Your task to perform on an android device: Open Youtube and go to the subscriptions tab Image 0: 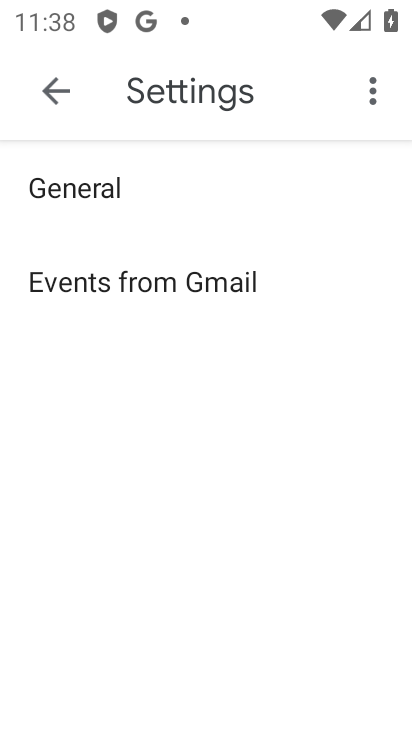
Step 0: press home button
Your task to perform on an android device: Open Youtube and go to the subscriptions tab Image 1: 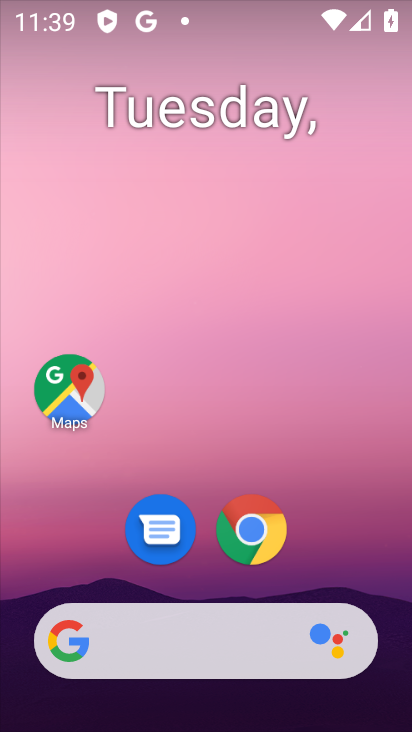
Step 1: drag from (157, 598) to (326, 7)
Your task to perform on an android device: Open Youtube and go to the subscriptions tab Image 2: 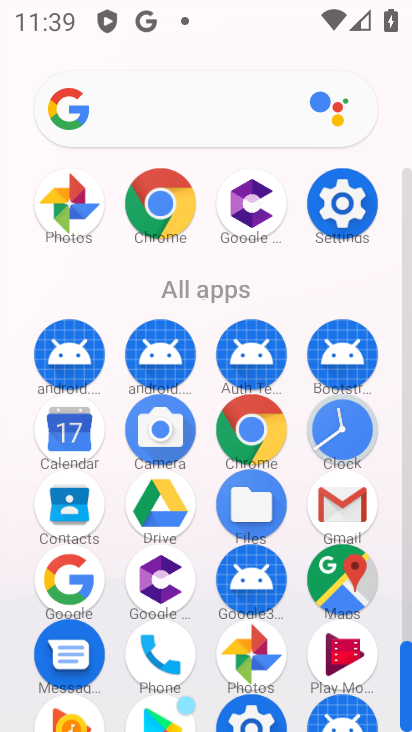
Step 2: drag from (185, 572) to (260, 336)
Your task to perform on an android device: Open Youtube and go to the subscriptions tab Image 3: 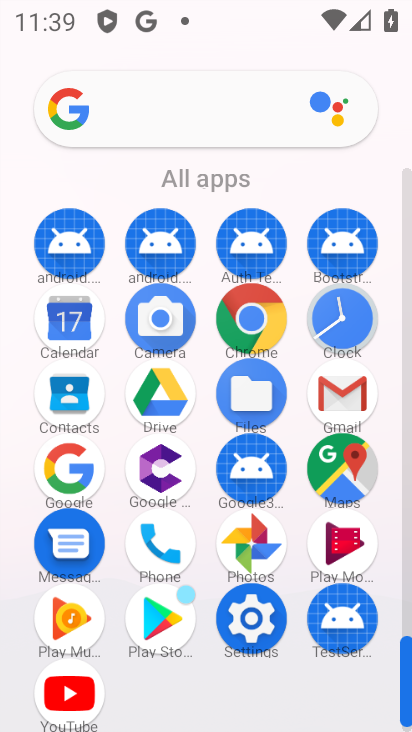
Step 3: click (71, 688)
Your task to perform on an android device: Open Youtube and go to the subscriptions tab Image 4: 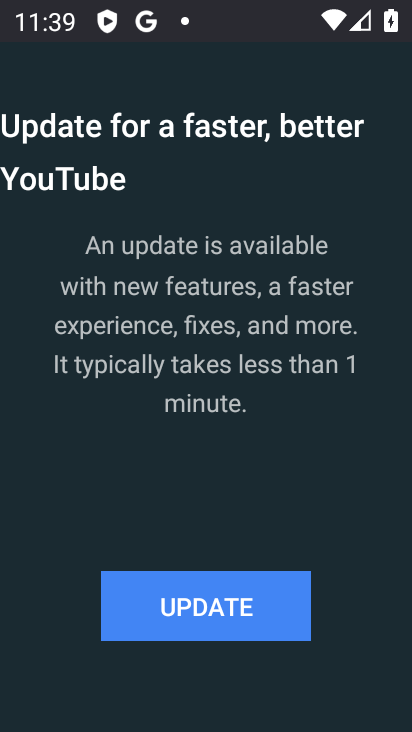
Step 4: click (243, 613)
Your task to perform on an android device: Open Youtube and go to the subscriptions tab Image 5: 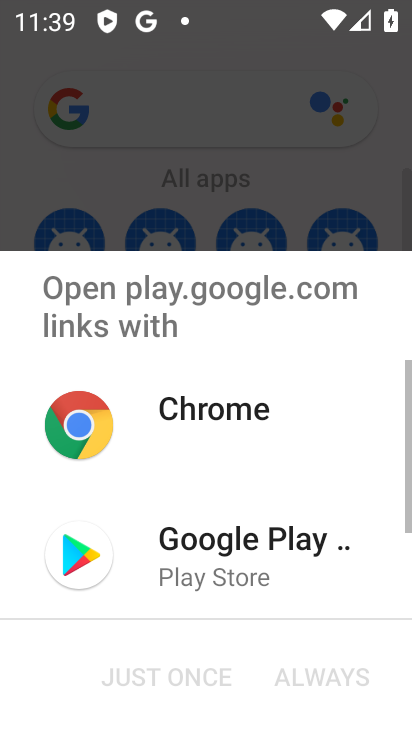
Step 5: click (267, 577)
Your task to perform on an android device: Open Youtube and go to the subscriptions tab Image 6: 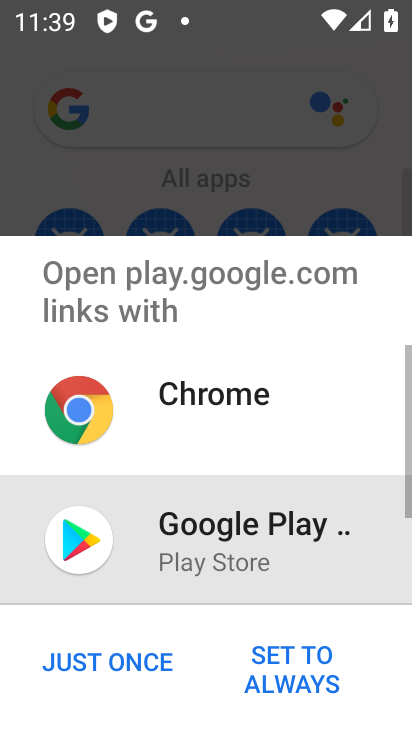
Step 6: click (156, 656)
Your task to perform on an android device: Open Youtube and go to the subscriptions tab Image 7: 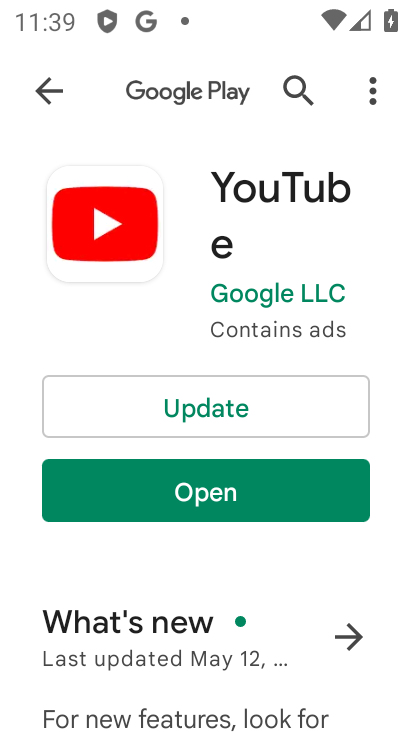
Step 7: click (279, 405)
Your task to perform on an android device: Open Youtube and go to the subscriptions tab Image 8: 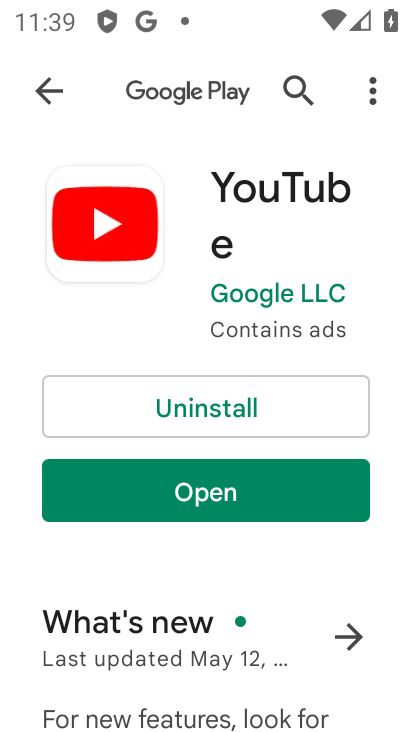
Step 8: click (275, 495)
Your task to perform on an android device: Open Youtube and go to the subscriptions tab Image 9: 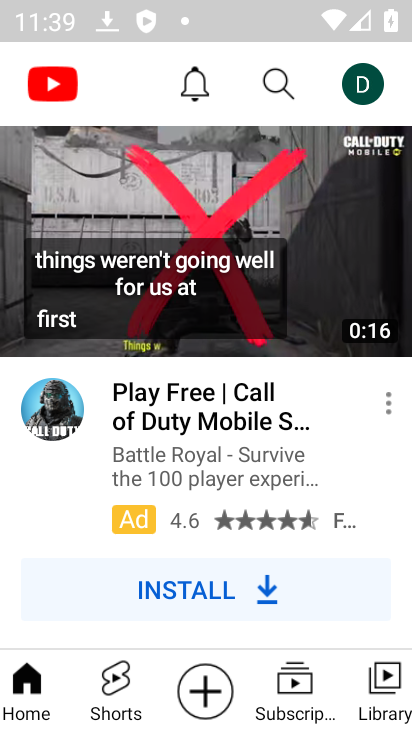
Step 9: click (298, 660)
Your task to perform on an android device: Open Youtube and go to the subscriptions tab Image 10: 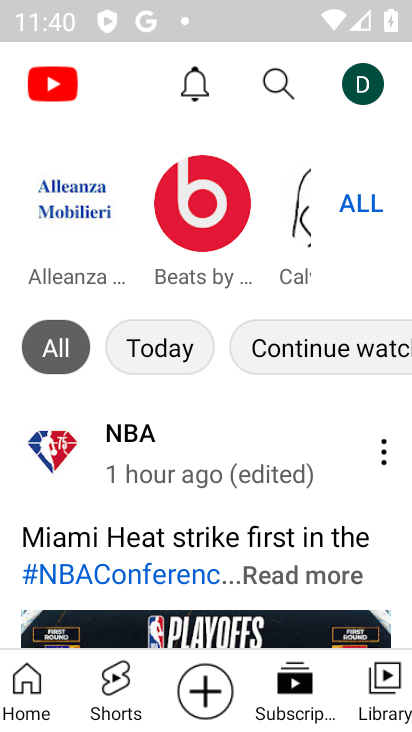
Step 10: task complete